Your task to perform on an android device: open app "Viber Messenger" (install if not already installed) and go to login screen Image 0: 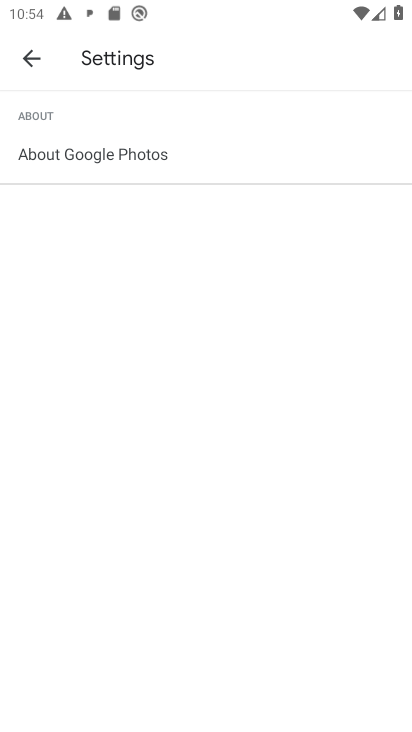
Step 0: press home button
Your task to perform on an android device: open app "Viber Messenger" (install if not already installed) and go to login screen Image 1: 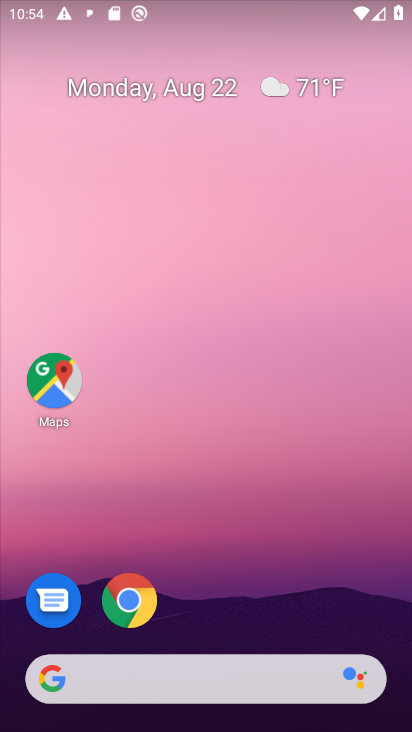
Step 1: drag from (212, 561) to (212, 130)
Your task to perform on an android device: open app "Viber Messenger" (install if not already installed) and go to login screen Image 2: 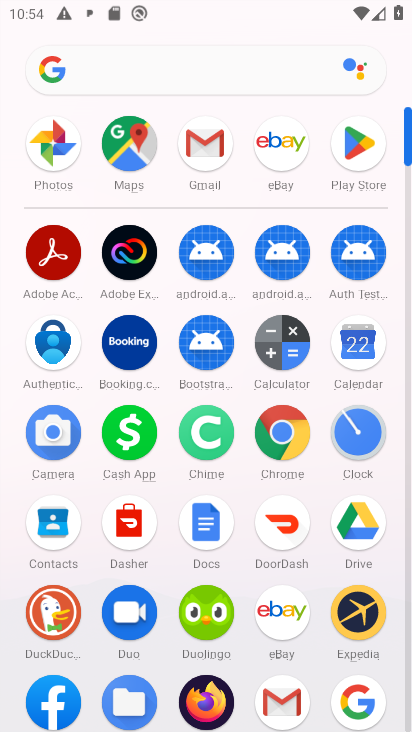
Step 2: click (352, 155)
Your task to perform on an android device: open app "Viber Messenger" (install if not already installed) and go to login screen Image 3: 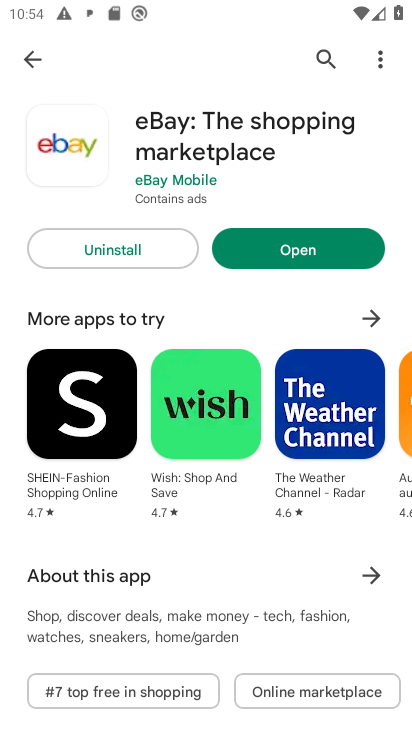
Step 3: click (324, 48)
Your task to perform on an android device: open app "Viber Messenger" (install if not already installed) and go to login screen Image 4: 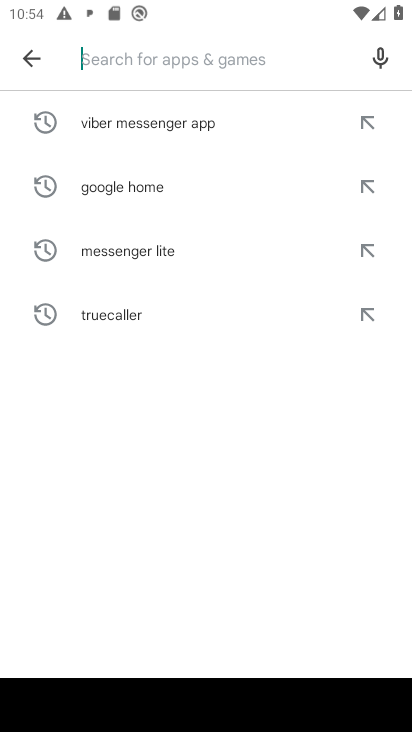
Step 4: type "Viber Messenger"
Your task to perform on an android device: open app "Viber Messenger" (install if not already installed) and go to login screen Image 5: 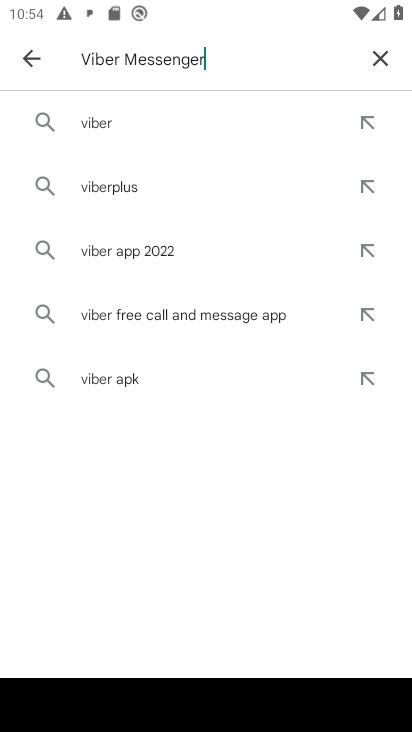
Step 5: type ""
Your task to perform on an android device: open app "Viber Messenger" (install if not already installed) and go to login screen Image 6: 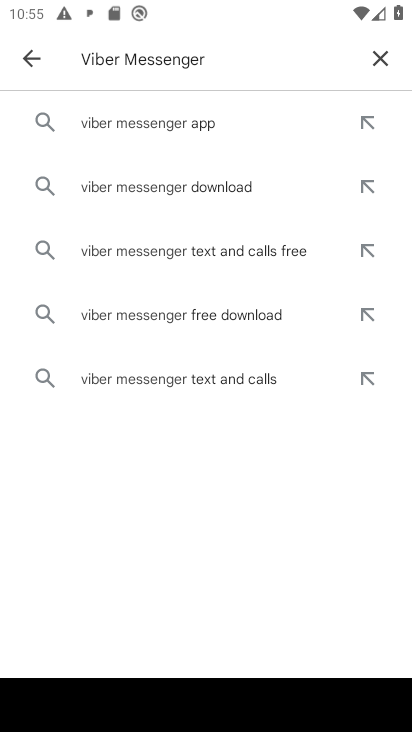
Step 6: click (175, 117)
Your task to perform on an android device: open app "Viber Messenger" (install if not already installed) and go to login screen Image 7: 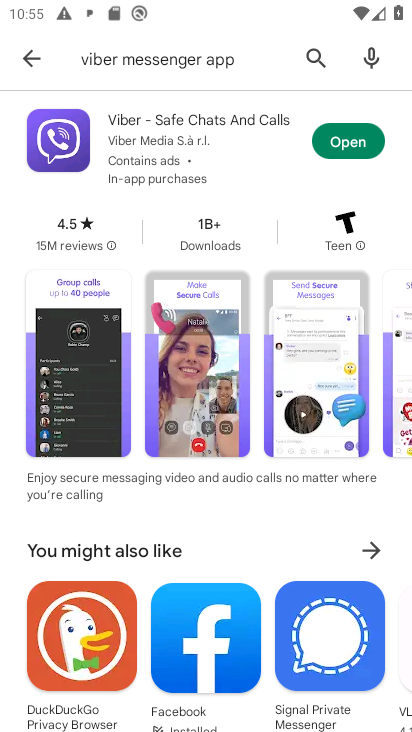
Step 7: click (343, 138)
Your task to perform on an android device: open app "Viber Messenger" (install if not already installed) and go to login screen Image 8: 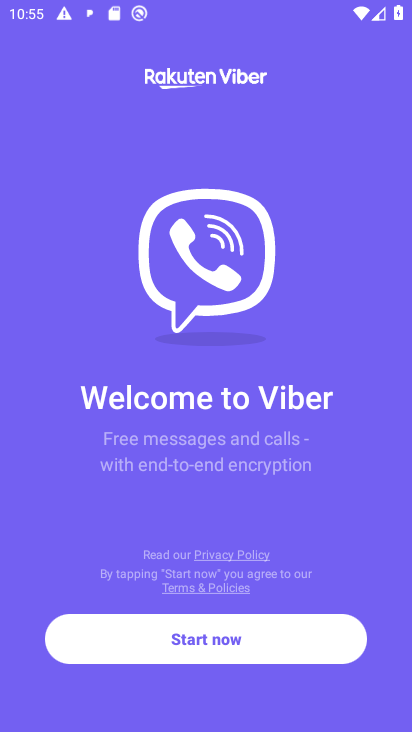
Step 8: task complete